Your task to perform on an android device: Search for the new ikea dresser Image 0: 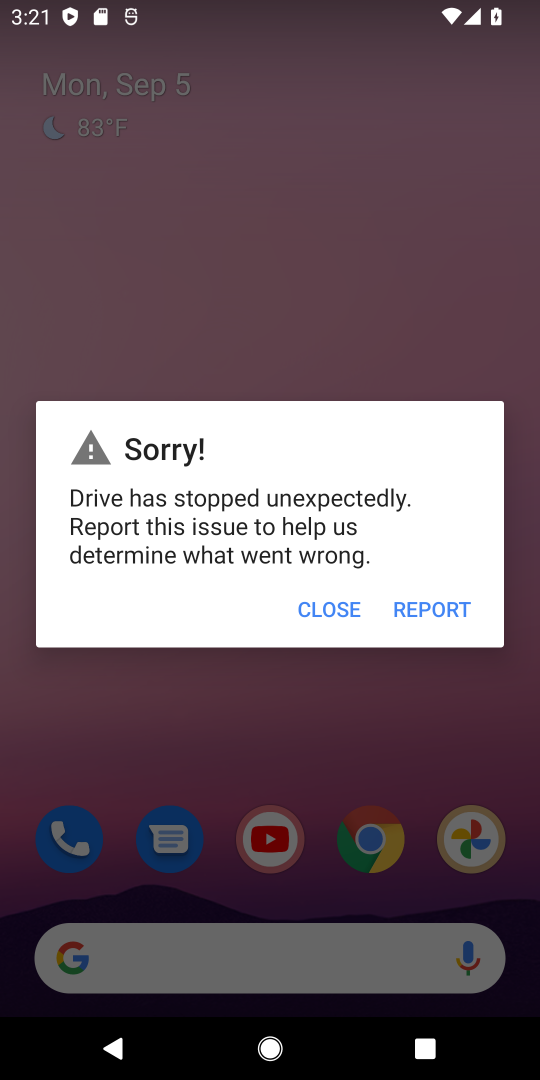
Step 0: click (311, 601)
Your task to perform on an android device: Search for the new ikea dresser Image 1: 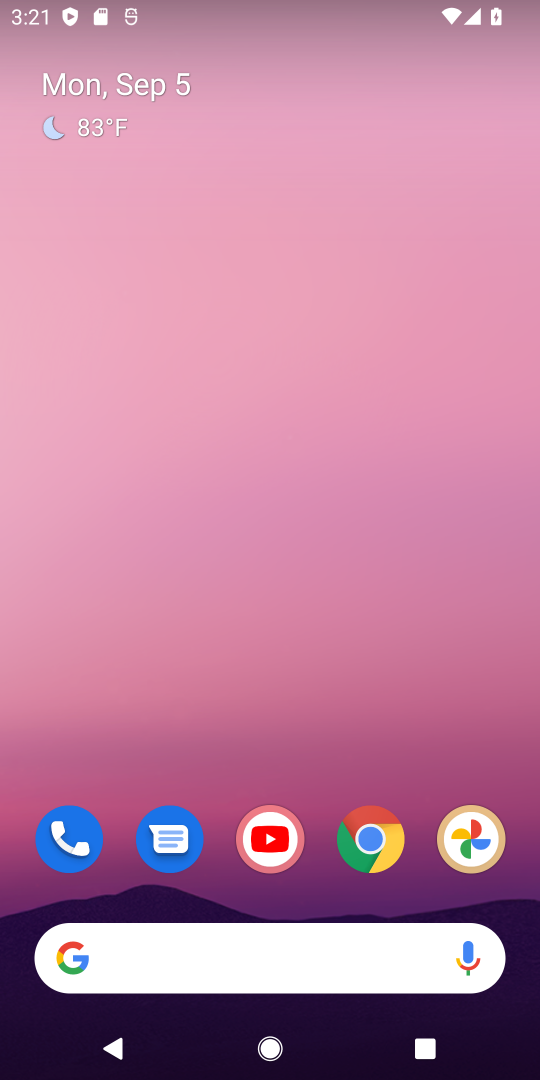
Step 1: click (363, 840)
Your task to perform on an android device: Search for the new ikea dresser Image 2: 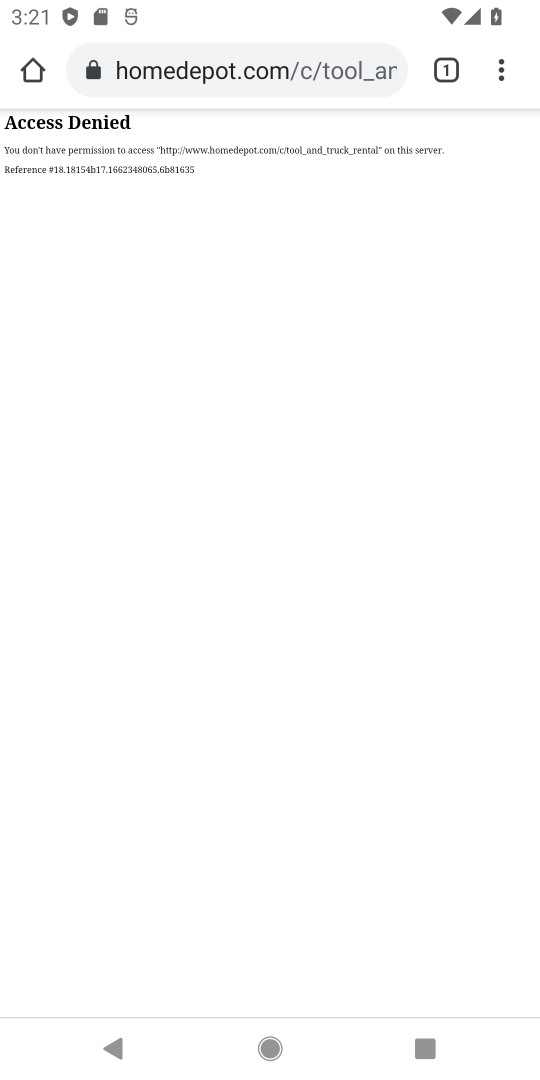
Step 2: click (449, 73)
Your task to perform on an android device: Search for the new ikea dresser Image 3: 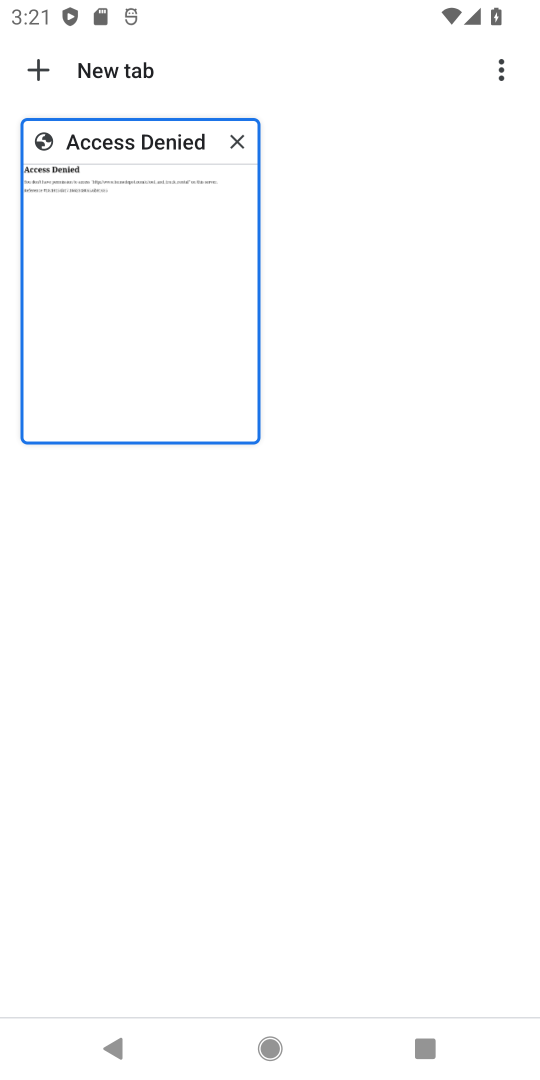
Step 3: click (233, 133)
Your task to perform on an android device: Search for the new ikea dresser Image 4: 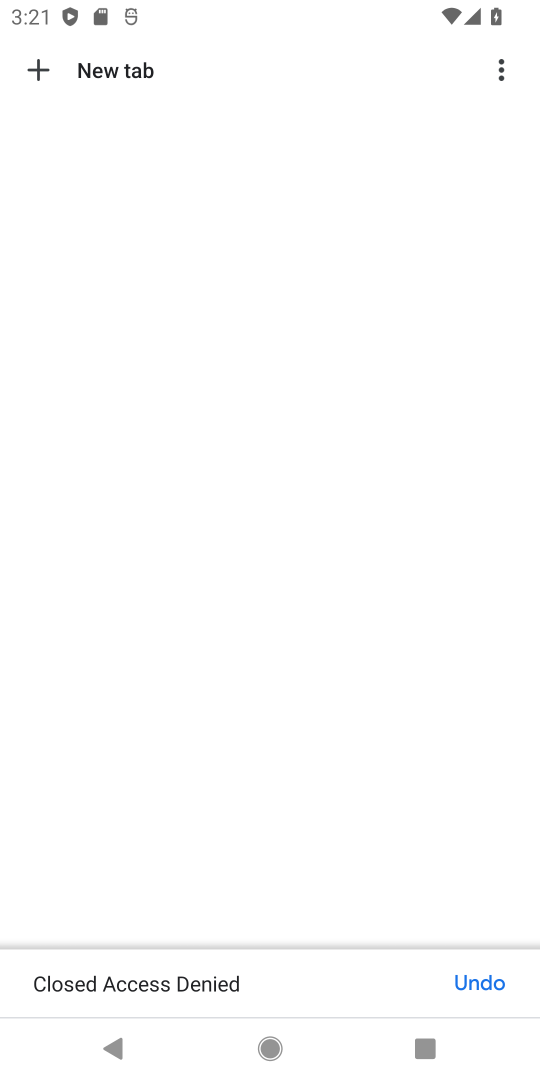
Step 4: click (34, 65)
Your task to perform on an android device: Search for the new ikea dresser Image 5: 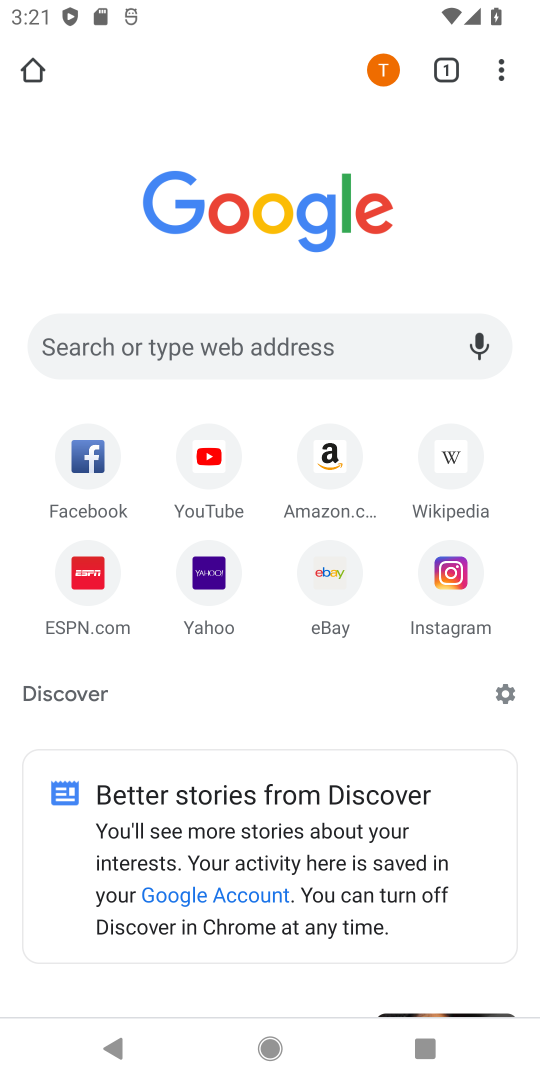
Step 5: click (230, 353)
Your task to perform on an android device: Search for the new ikea dresser Image 6: 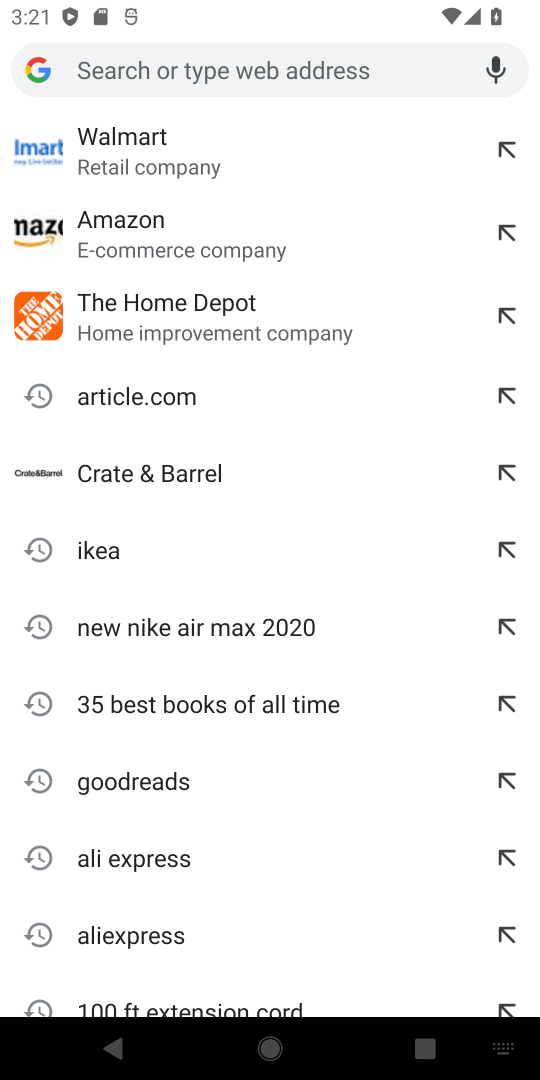
Step 6: type "the new ikea dresser"
Your task to perform on an android device: Search for the new ikea dresser Image 7: 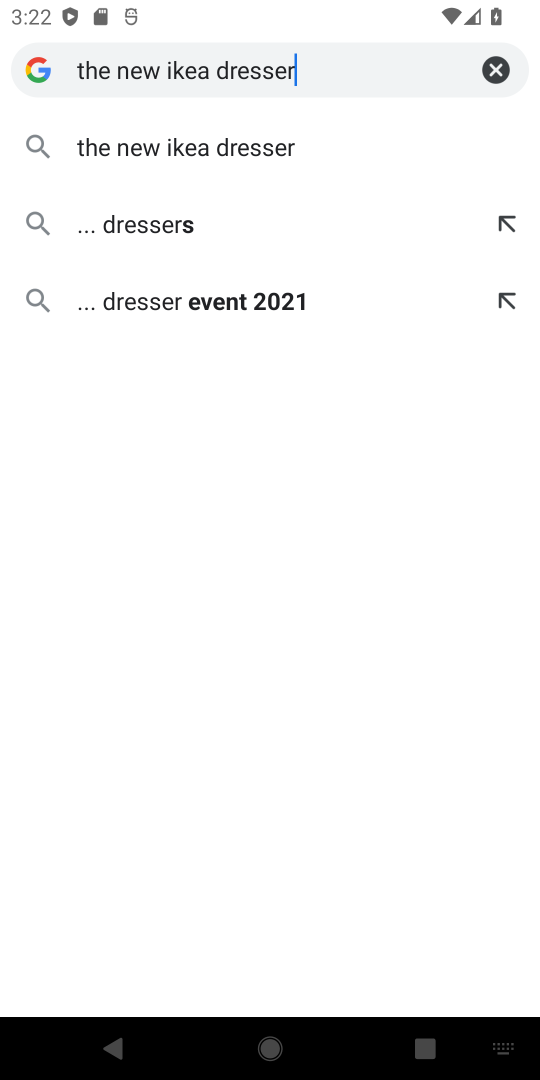
Step 7: click (244, 138)
Your task to perform on an android device: Search for the new ikea dresser Image 8: 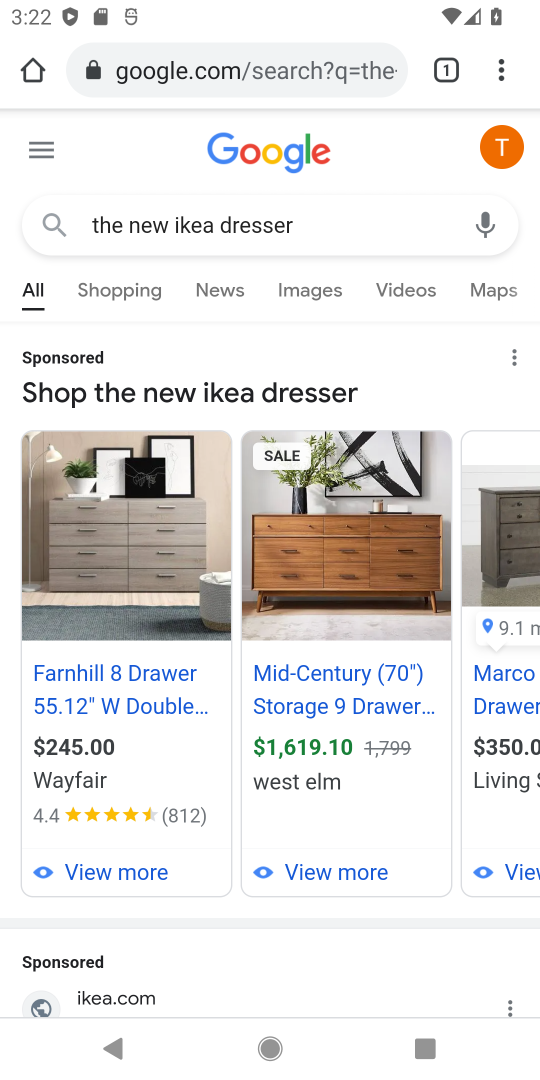
Step 8: task complete